Your task to perform on an android device: manage bookmarks in the chrome app Image 0: 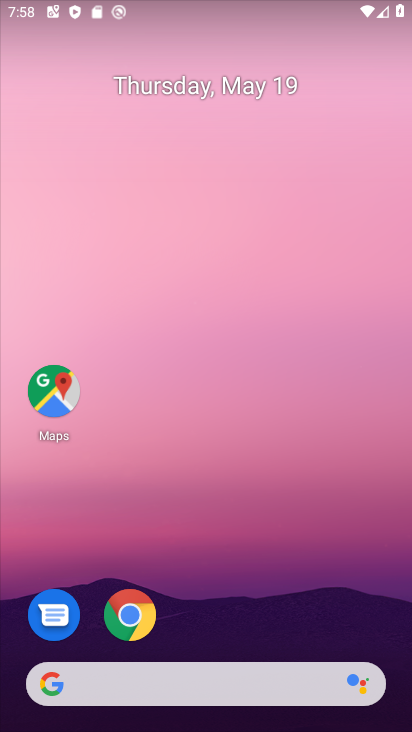
Step 0: click (147, 615)
Your task to perform on an android device: manage bookmarks in the chrome app Image 1: 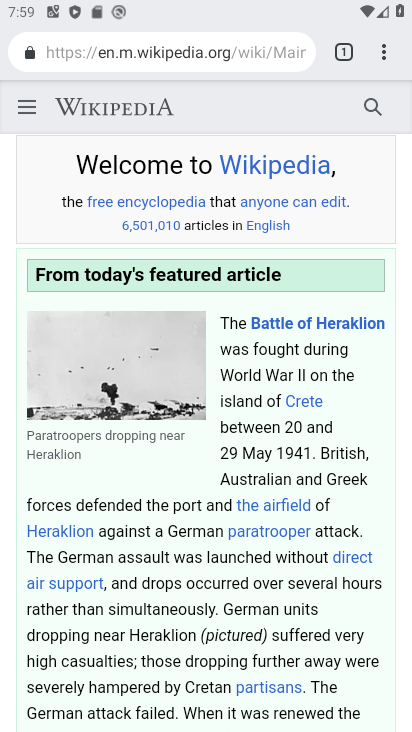
Step 1: click (382, 56)
Your task to perform on an android device: manage bookmarks in the chrome app Image 2: 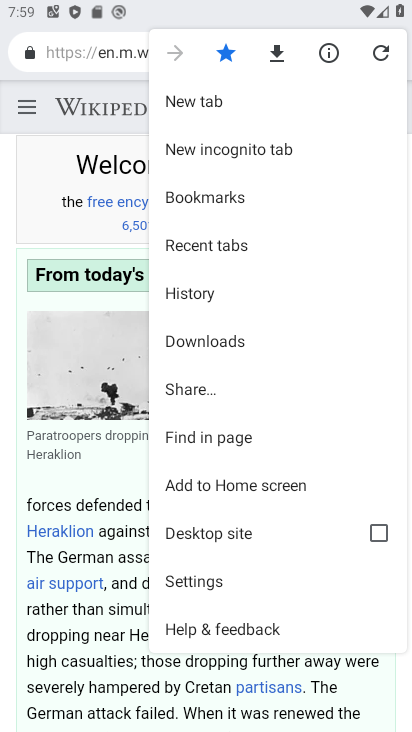
Step 2: click (258, 194)
Your task to perform on an android device: manage bookmarks in the chrome app Image 3: 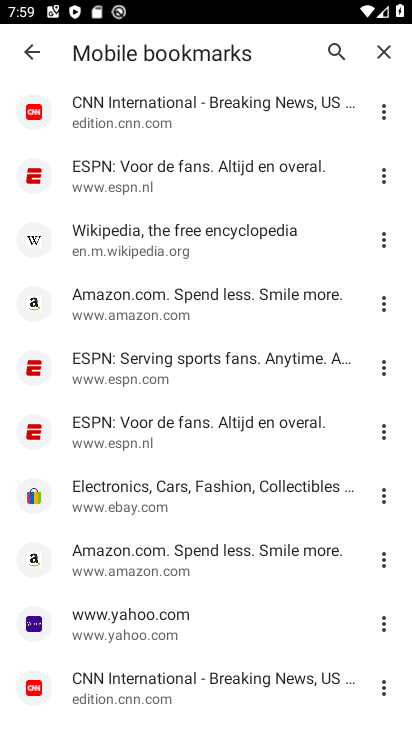
Step 3: task complete